Your task to perform on an android device: Search for "logitech g pro" on walmart, select the first entry, and add it to the cart. Image 0: 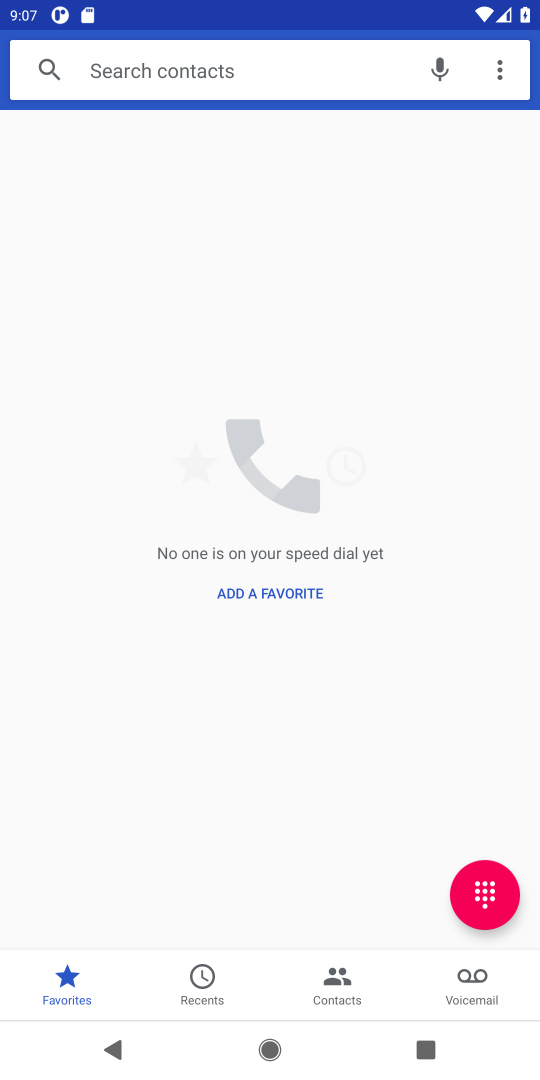
Step 0: press home button
Your task to perform on an android device: Search for "logitech g pro" on walmart, select the first entry, and add it to the cart. Image 1: 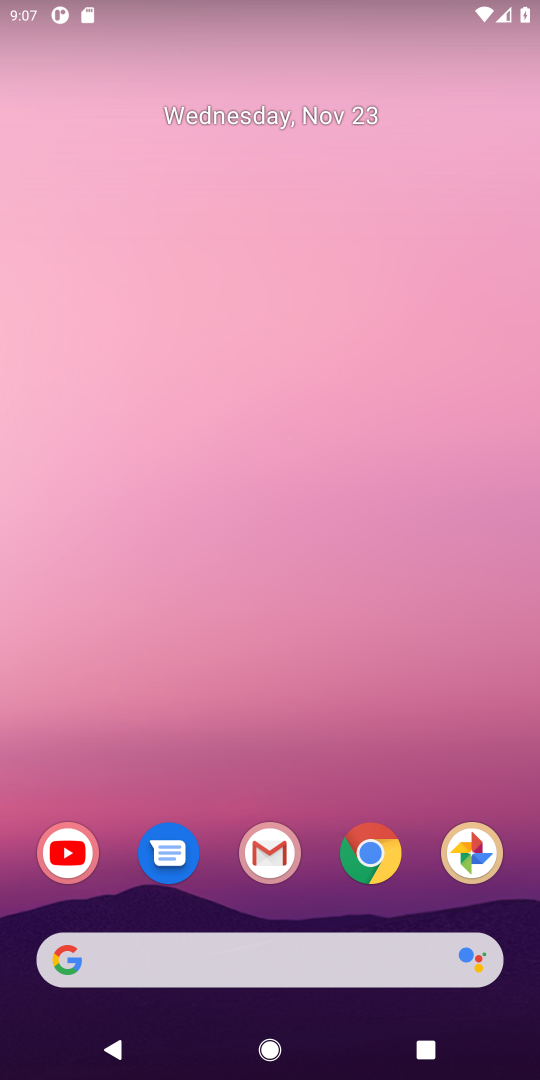
Step 1: click (366, 859)
Your task to perform on an android device: Search for "logitech g pro" on walmart, select the first entry, and add it to the cart. Image 2: 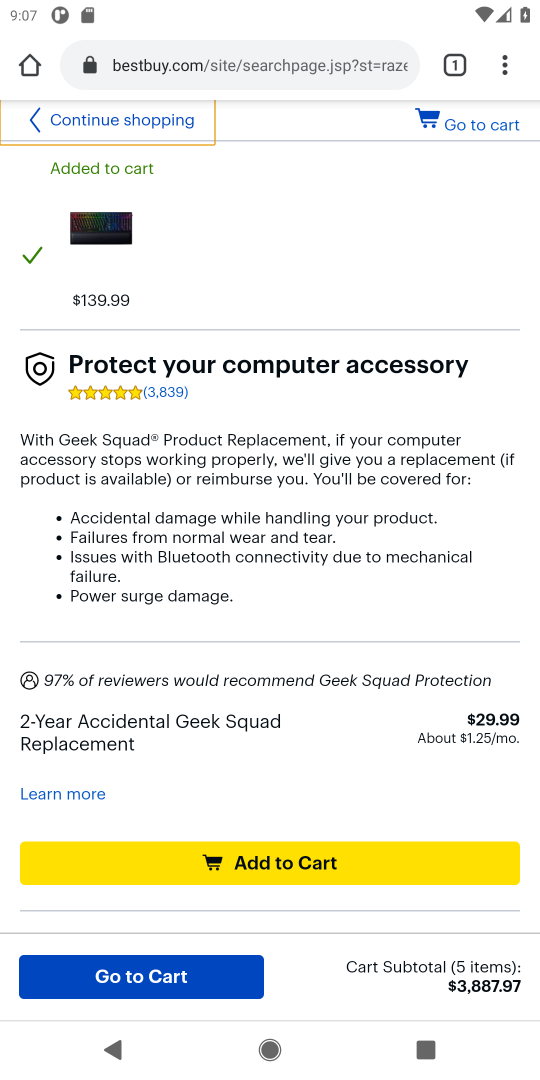
Step 2: click (179, 57)
Your task to perform on an android device: Search for "logitech g pro" on walmart, select the first entry, and add it to the cart. Image 3: 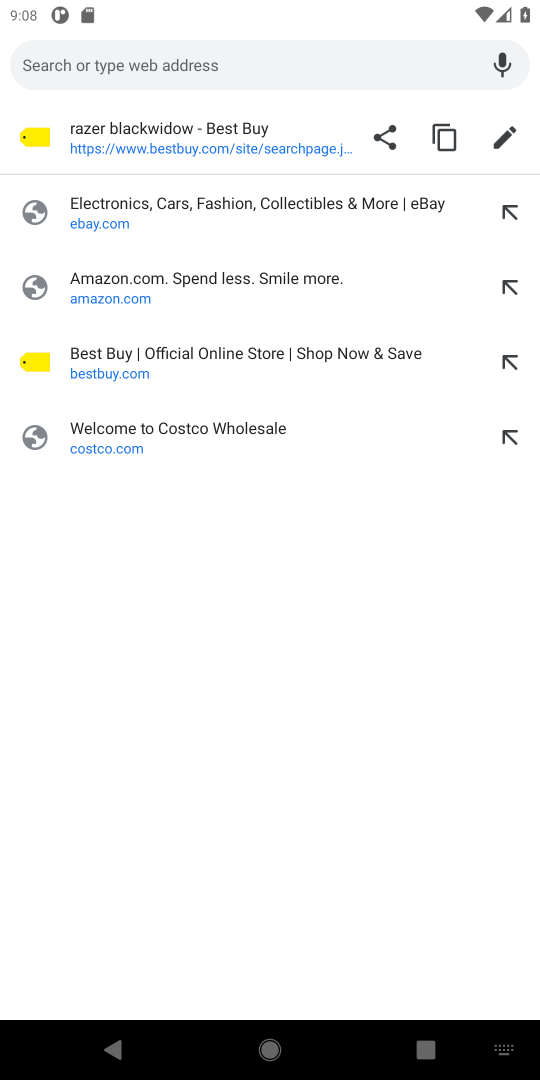
Step 3: type "walmart.com"
Your task to perform on an android device: Search for "logitech g pro" on walmart, select the first entry, and add it to the cart. Image 4: 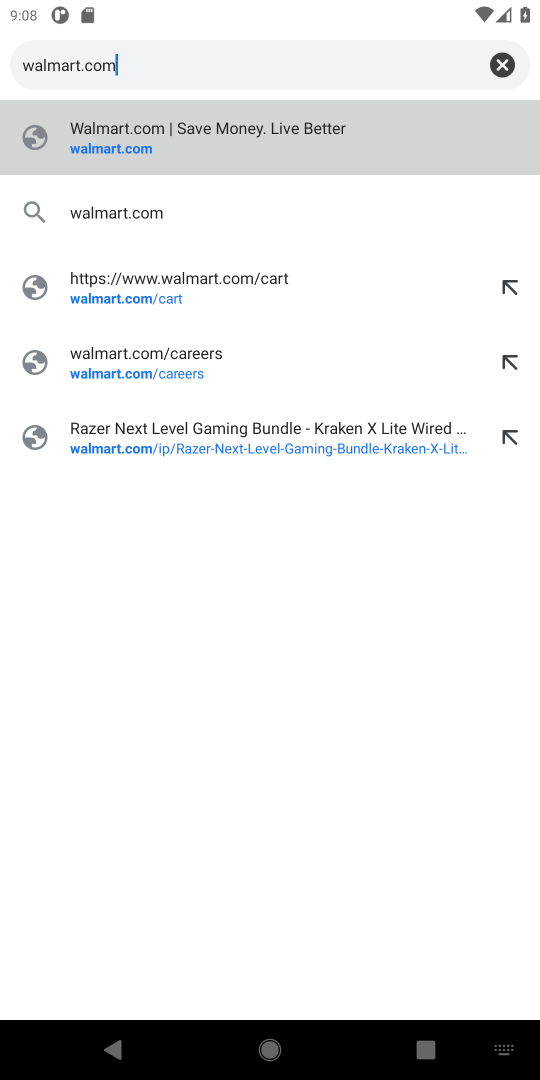
Step 4: click (76, 143)
Your task to perform on an android device: Search for "logitech g pro" on walmart, select the first entry, and add it to the cart. Image 5: 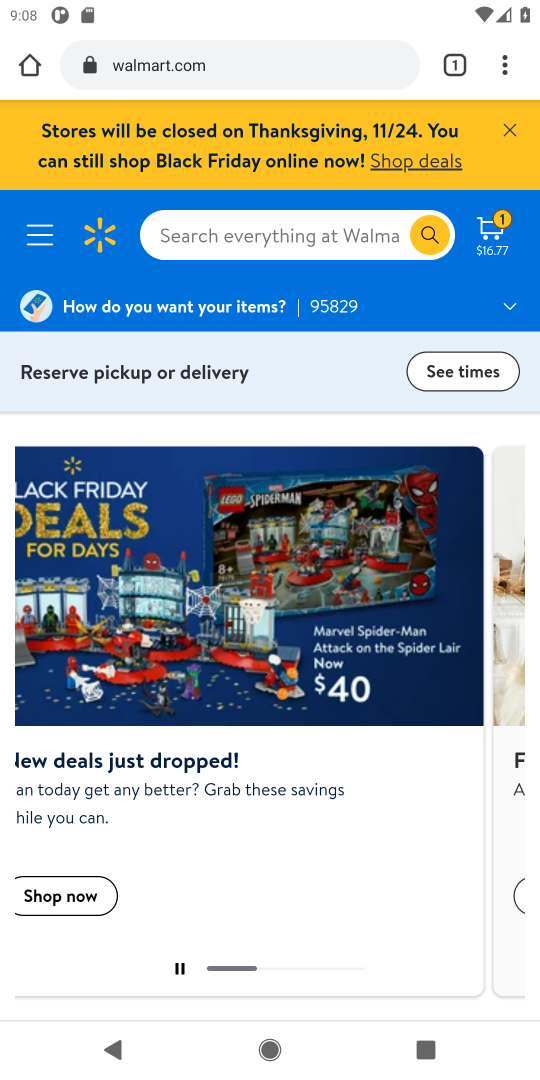
Step 5: click (234, 229)
Your task to perform on an android device: Search for "logitech g pro" on walmart, select the first entry, and add it to the cart. Image 6: 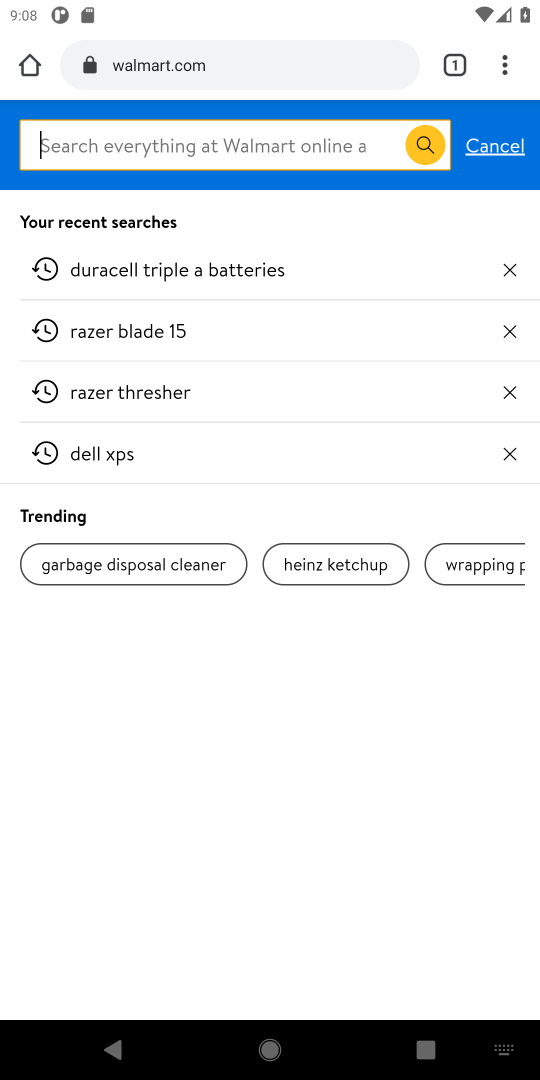
Step 6: type "logitech g pro"
Your task to perform on an android device: Search for "logitech g pro" on walmart, select the first entry, and add it to the cart. Image 7: 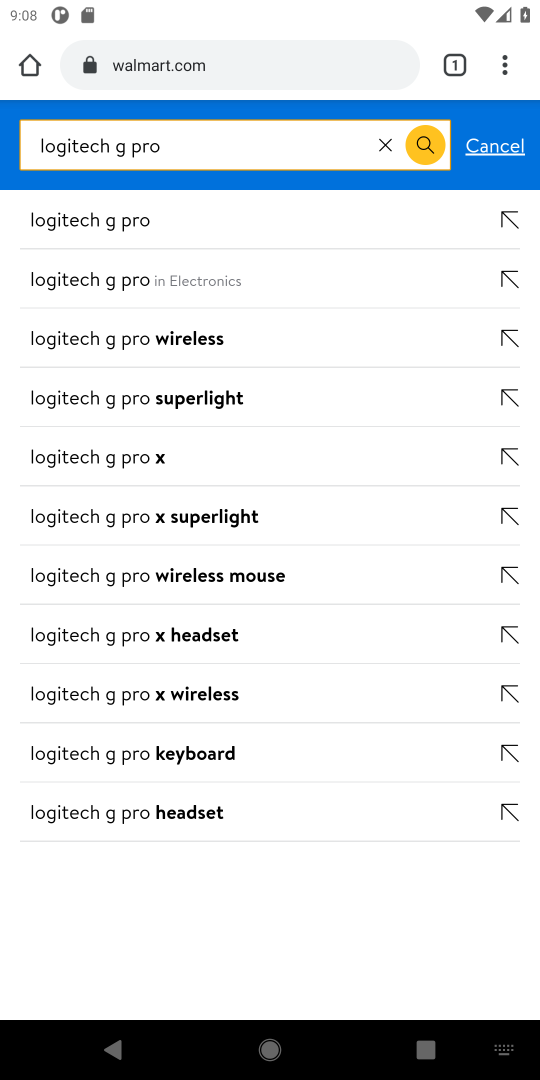
Step 7: click (95, 229)
Your task to perform on an android device: Search for "logitech g pro" on walmart, select the first entry, and add it to the cart. Image 8: 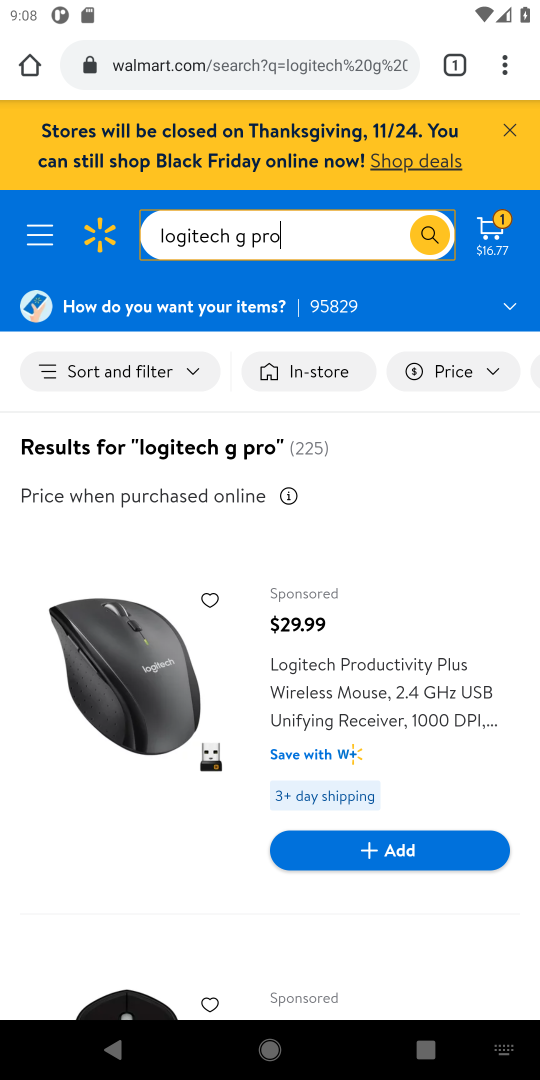
Step 8: task complete